Your task to perform on an android device: find which apps use the phone's location Image 0: 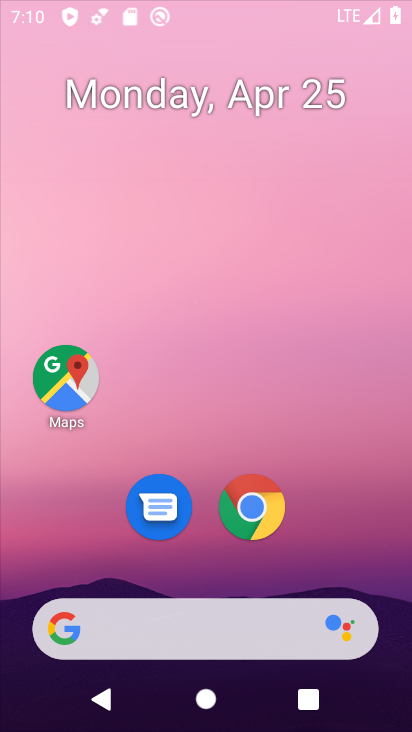
Step 0: drag from (371, 342) to (406, 56)
Your task to perform on an android device: find which apps use the phone's location Image 1: 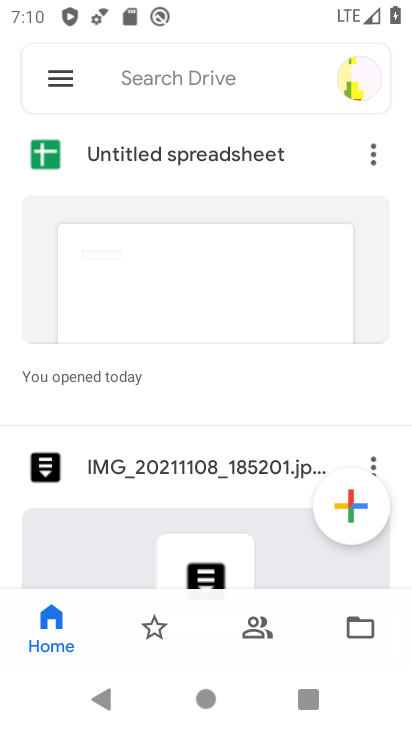
Step 1: press home button
Your task to perform on an android device: find which apps use the phone's location Image 2: 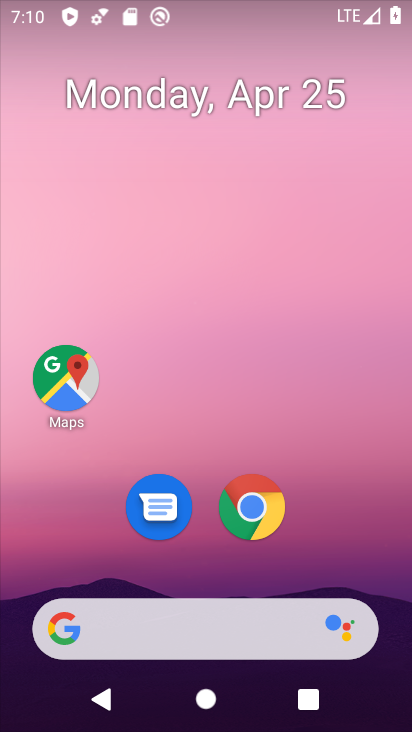
Step 2: drag from (324, 537) to (318, 126)
Your task to perform on an android device: find which apps use the phone's location Image 3: 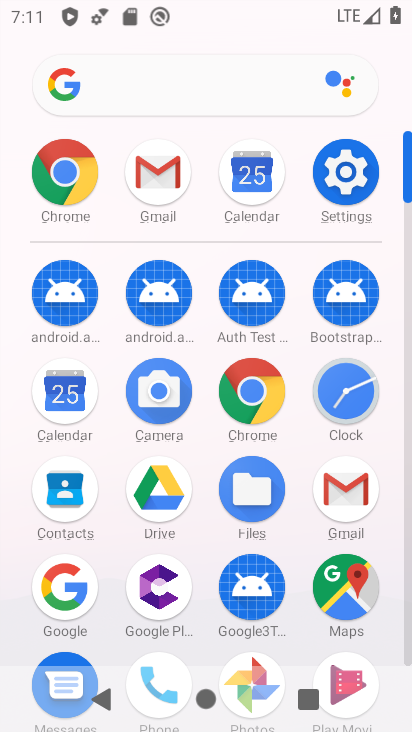
Step 3: click (401, 595)
Your task to perform on an android device: find which apps use the phone's location Image 4: 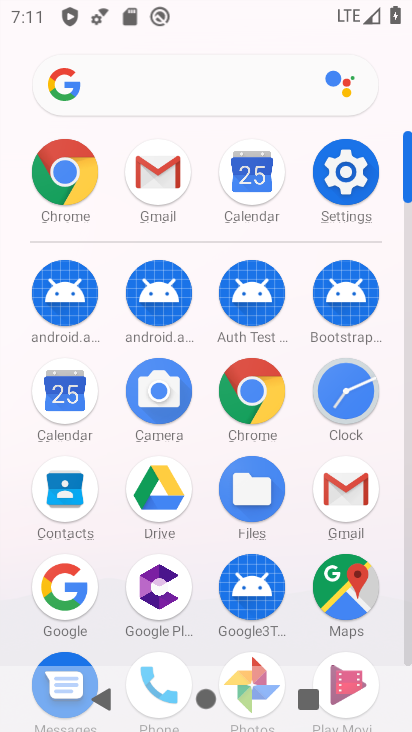
Step 4: click (406, 607)
Your task to perform on an android device: find which apps use the phone's location Image 5: 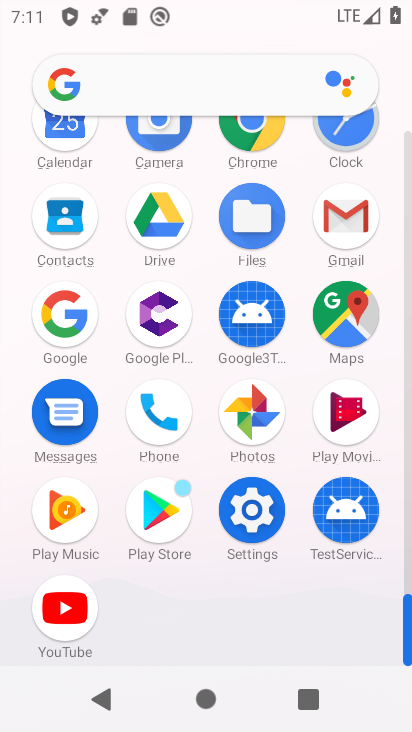
Step 5: click (158, 421)
Your task to perform on an android device: find which apps use the phone's location Image 6: 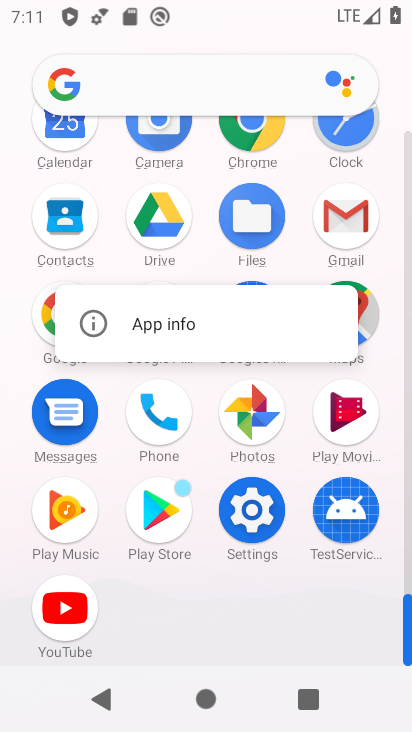
Step 6: click (152, 339)
Your task to perform on an android device: find which apps use the phone's location Image 7: 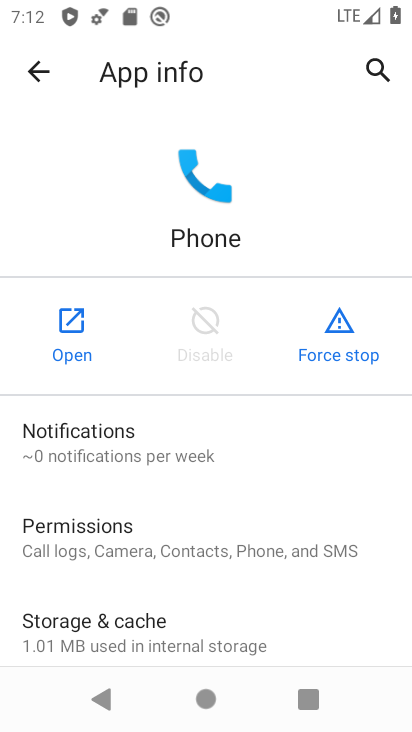
Step 7: drag from (219, 575) to (270, 370)
Your task to perform on an android device: find which apps use the phone's location Image 8: 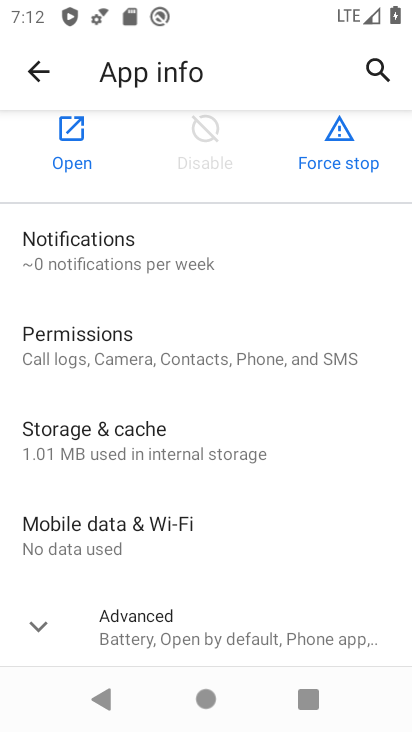
Step 8: click (25, 78)
Your task to perform on an android device: find which apps use the phone's location Image 9: 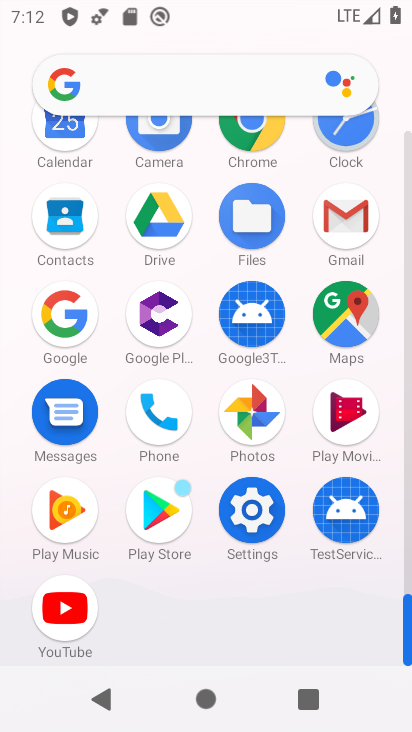
Step 9: click (175, 417)
Your task to perform on an android device: find which apps use the phone's location Image 10: 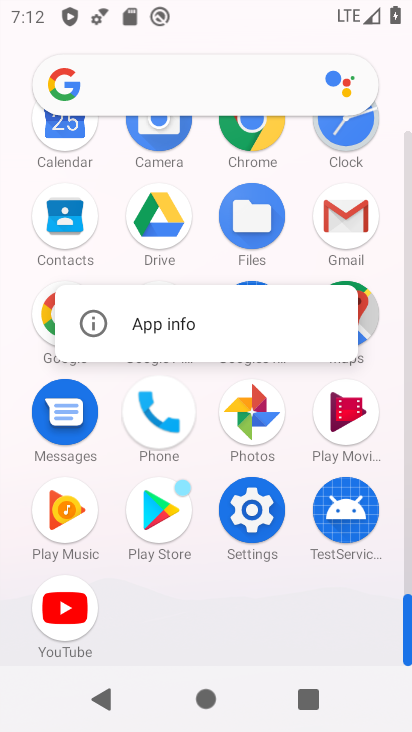
Step 10: click (149, 338)
Your task to perform on an android device: find which apps use the phone's location Image 11: 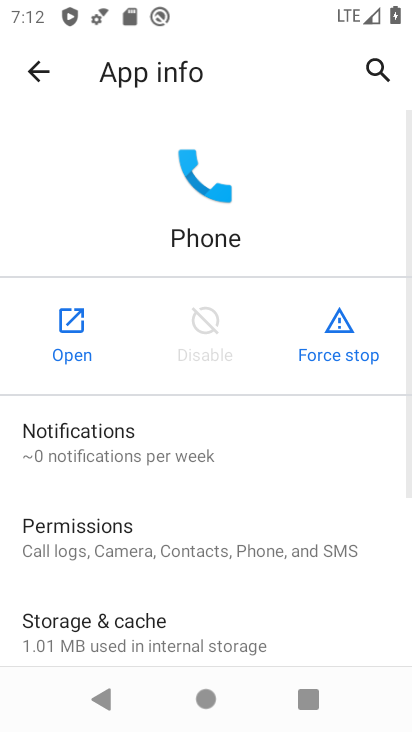
Step 11: click (60, 539)
Your task to perform on an android device: find which apps use the phone's location Image 12: 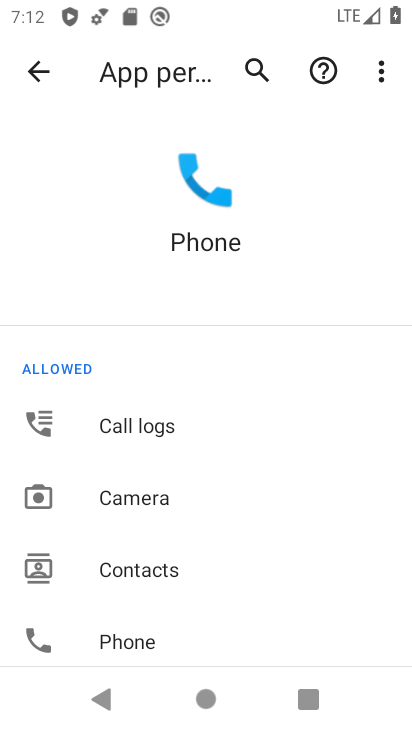
Step 12: drag from (236, 655) to (185, 278)
Your task to perform on an android device: find which apps use the phone's location Image 13: 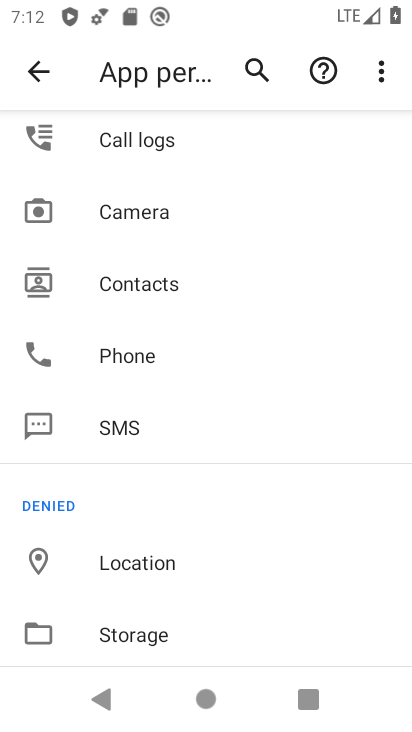
Step 13: click (132, 551)
Your task to perform on an android device: find which apps use the phone's location Image 14: 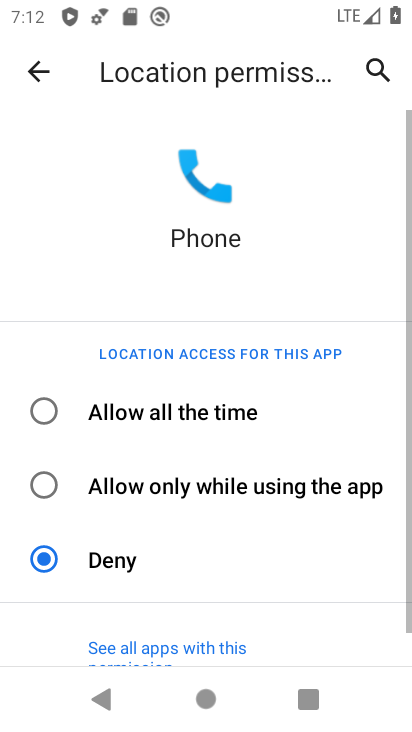
Step 14: task complete